Your task to perform on an android device: Open display settings Image 0: 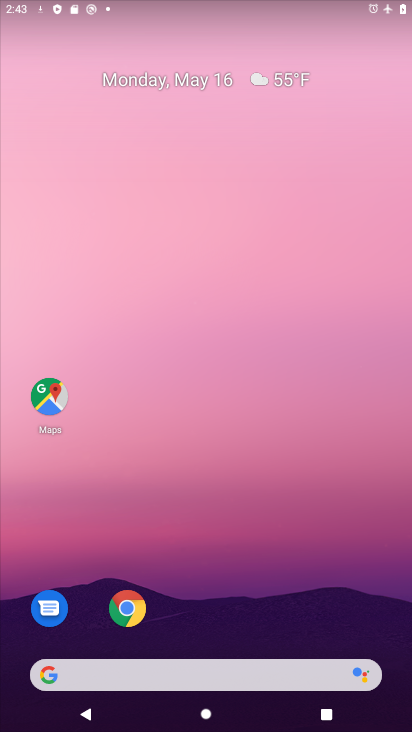
Step 0: drag from (221, 625) to (205, 143)
Your task to perform on an android device: Open display settings Image 1: 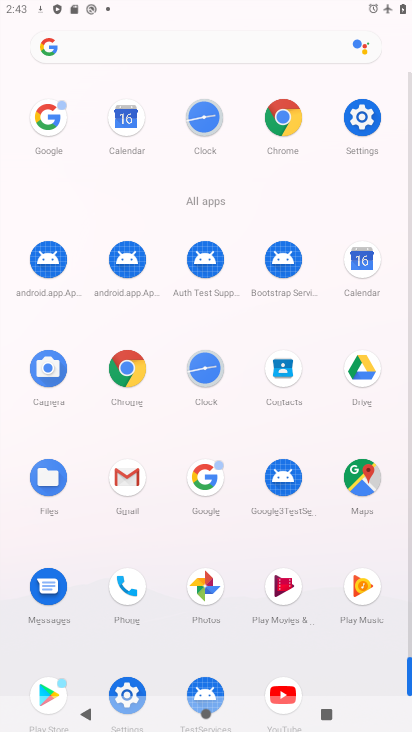
Step 1: click (358, 130)
Your task to perform on an android device: Open display settings Image 2: 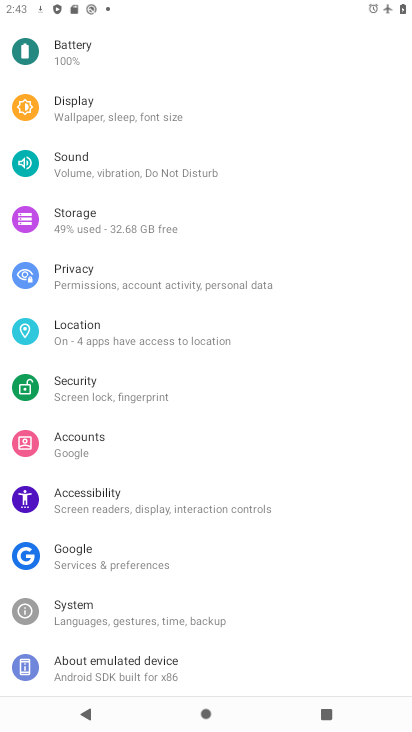
Step 2: click (100, 115)
Your task to perform on an android device: Open display settings Image 3: 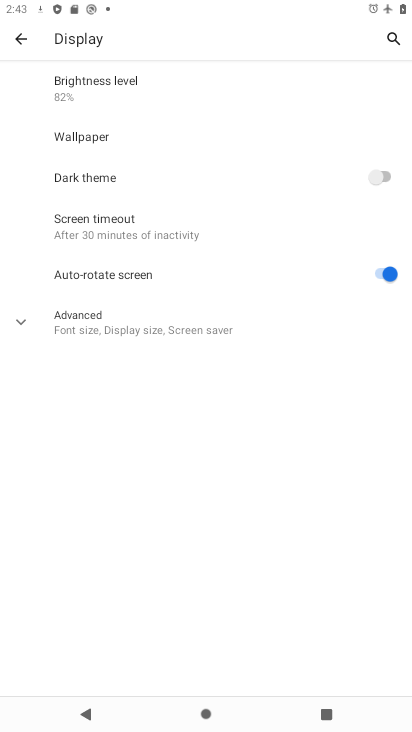
Step 3: click (142, 320)
Your task to perform on an android device: Open display settings Image 4: 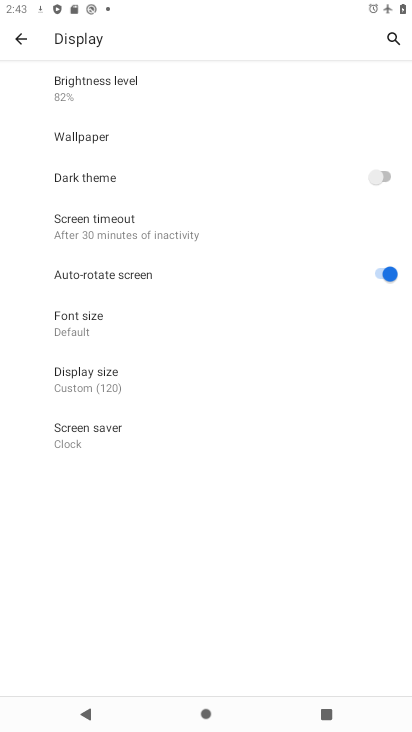
Step 4: task complete